Your task to perform on an android device: Go to Amazon Image 0: 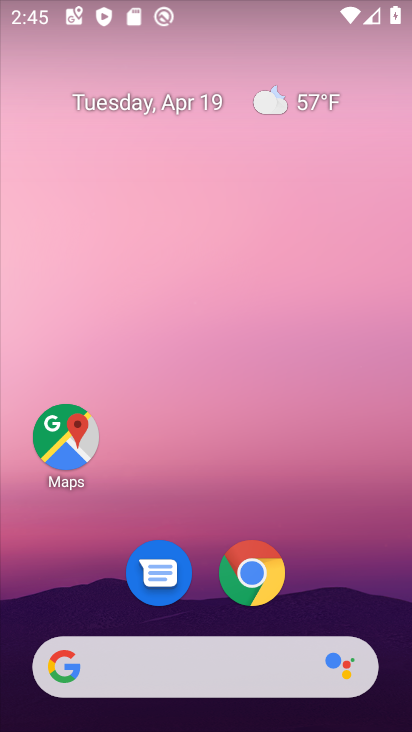
Step 0: click (238, 580)
Your task to perform on an android device: Go to Amazon Image 1: 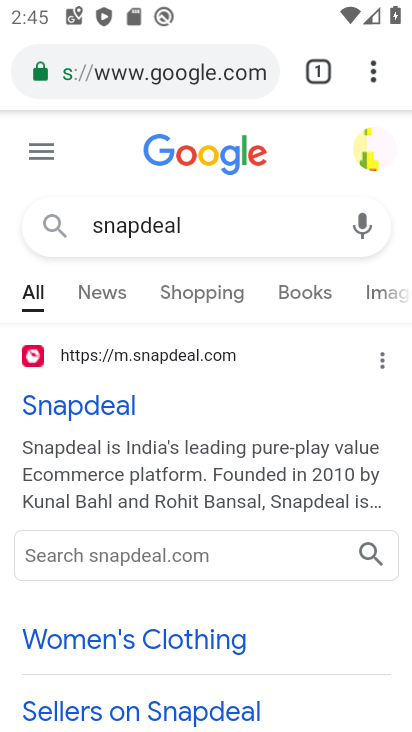
Step 1: click (368, 68)
Your task to perform on an android device: Go to Amazon Image 2: 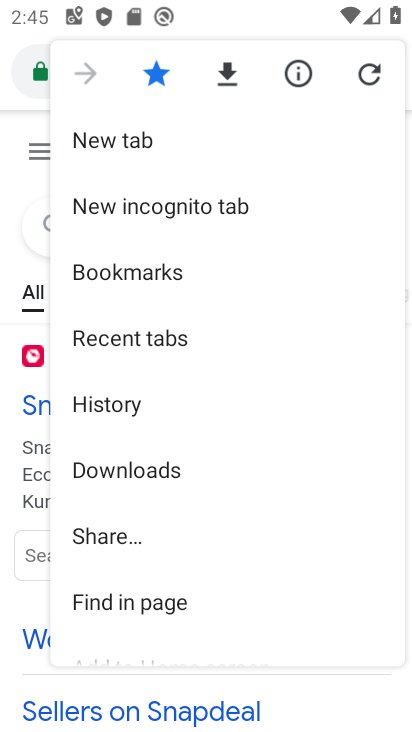
Step 2: click (114, 151)
Your task to perform on an android device: Go to Amazon Image 3: 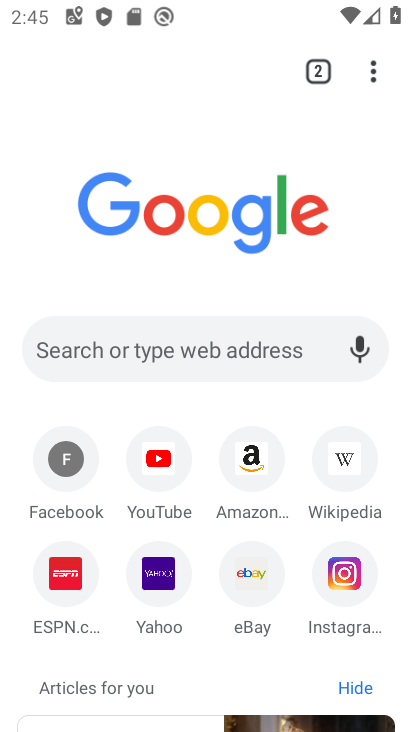
Step 3: click (255, 471)
Your task to perform on an android device: Go to Amazon Image 4: 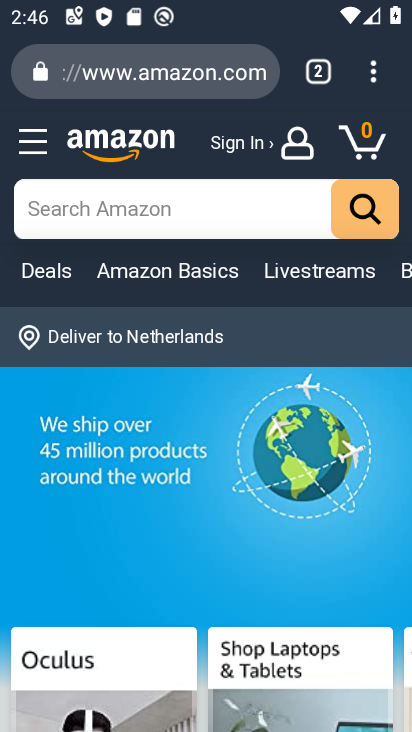
Step 4: task complete